Your task to perform on an android device: Open Android settings Image 0: 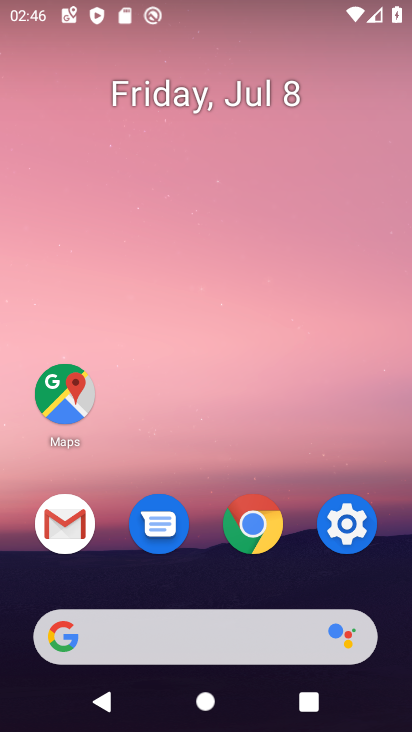
Step 0: click (341, 542)
Your task to perform on an android device: Open Android settings Image 1: 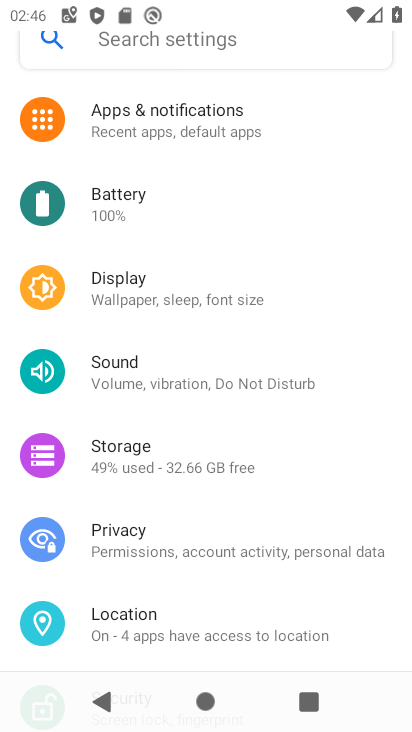
Step 1: click (125, 56)
Your task to perform on an android device: Open Android settings Image 2: 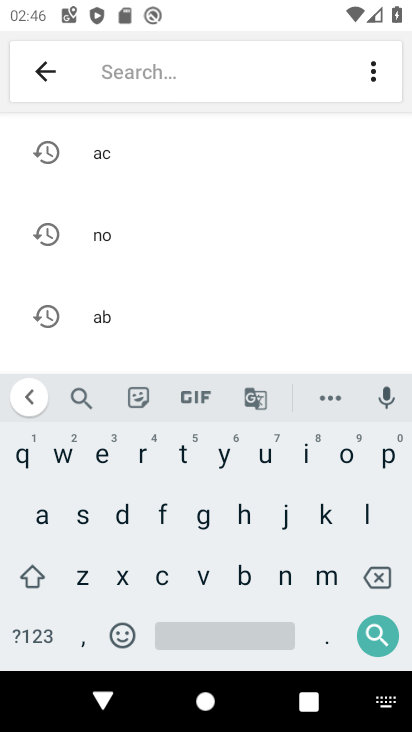
Step 2: click (38, 513)
Your task to perform on an android device: Open Android settings Image 3: 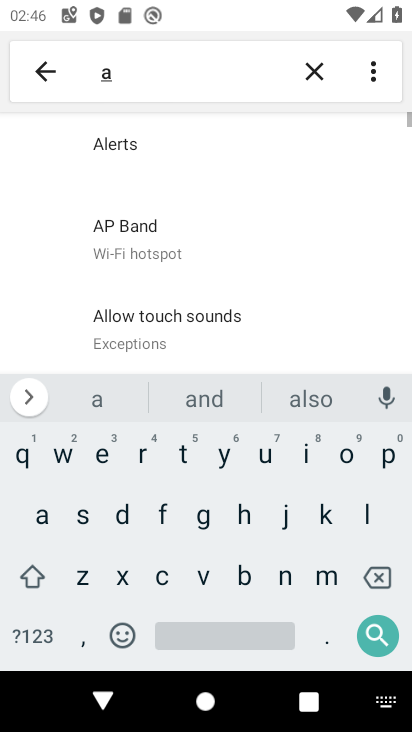
Step 3: click (279, 578)
Your task to perform on an android device: Open Android settings Image 4: 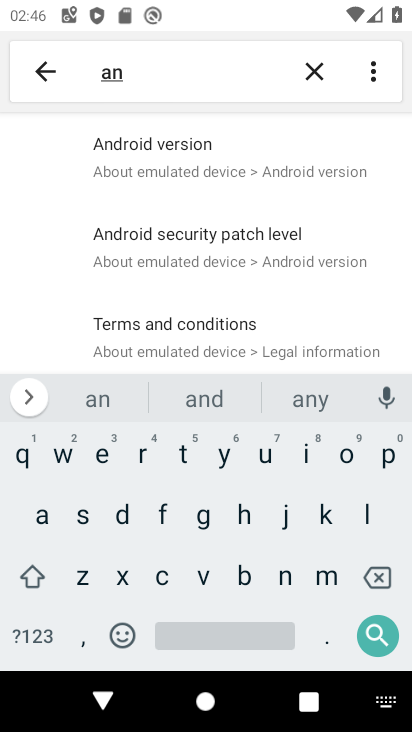
Step 4: click (151, 153)
Your task to perform on an android device: Open Android settings Image 5: 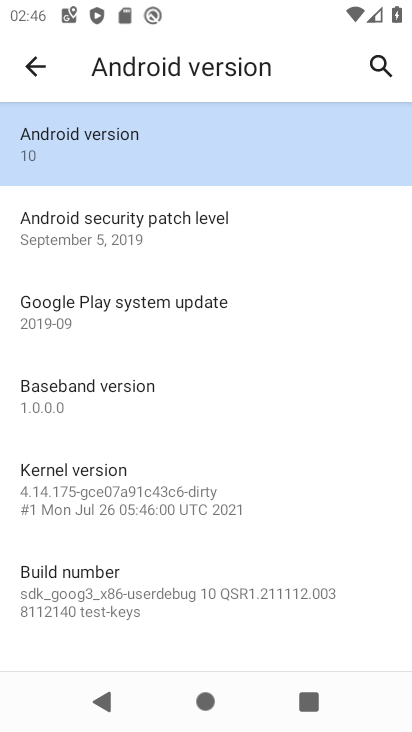
Step 5: click (152, 149)
Your task to perform on an android device: Open Android settings Image 6: 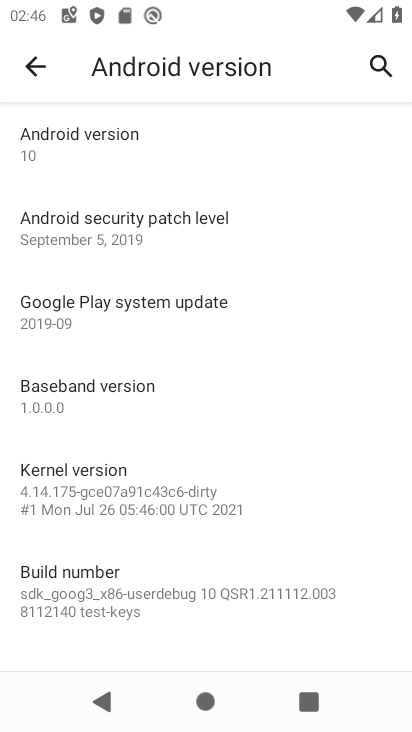
Step 6: task complete